Your task to perform on an android device: turn off smart reply in the gmail app Image 0: 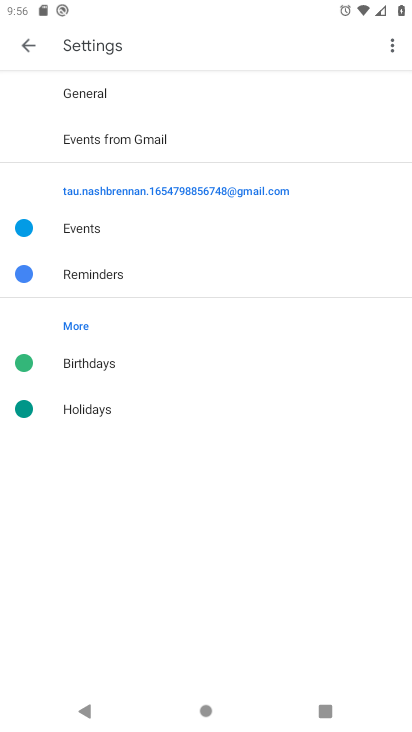
Step 0: click (27, 43)
Your task to perform on an android device: turn off smart reply in the gmail app Image 1: 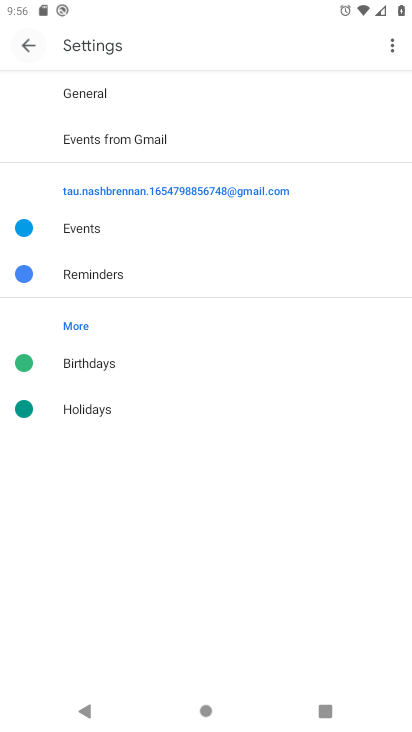
Step 1: click (29, 44)
Your task to perform on an android device: turn off smart reply in the gmail app Image 2: 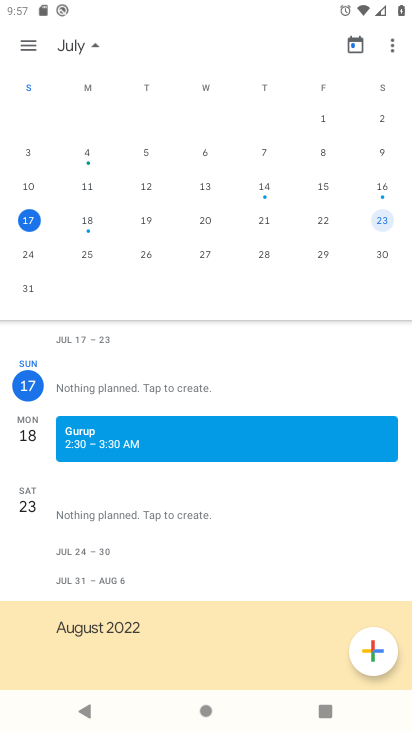
Step 2: drag from (292, 150) to (57, 275)
Your task to perform on an android device: turn off smart reply in the gmail app Image 3: 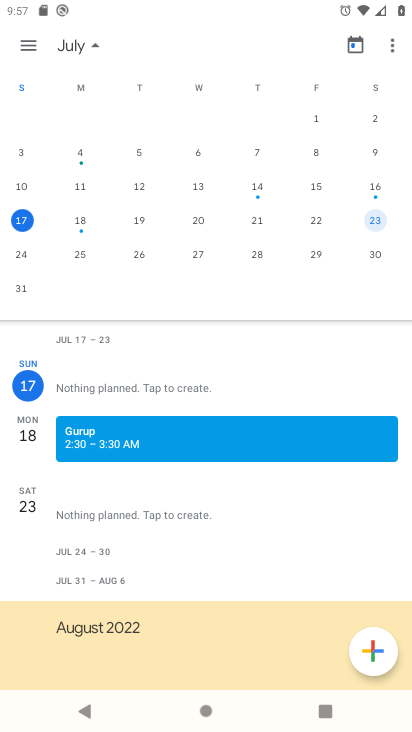
Step 3: drag from (285, 264) to (85, 278)
Your task to perform on an android device: turn off smart reply in the gmail app Image 4: 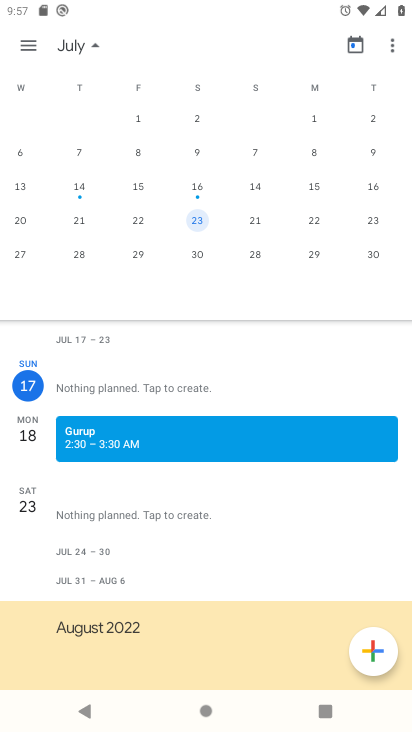
Step 4: drag from (246, 215) to (83, 246)
Your task to perform on an android device: turn off smart reply in the gmail app Image 5: 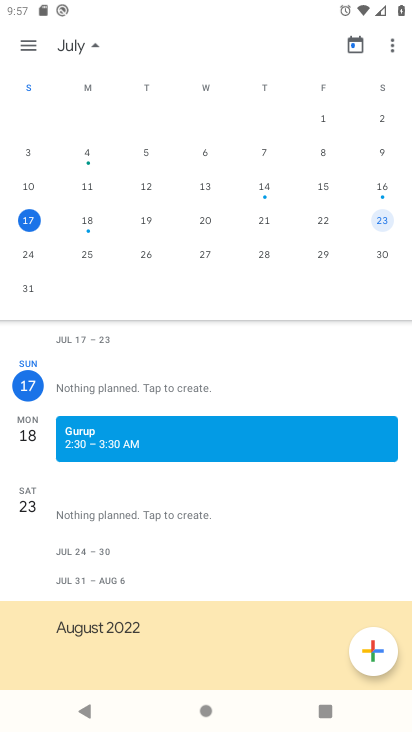
Step 5: click (157, 219)
Your task to perform on an android device: turn off smart reply in the gmail app Image 6: 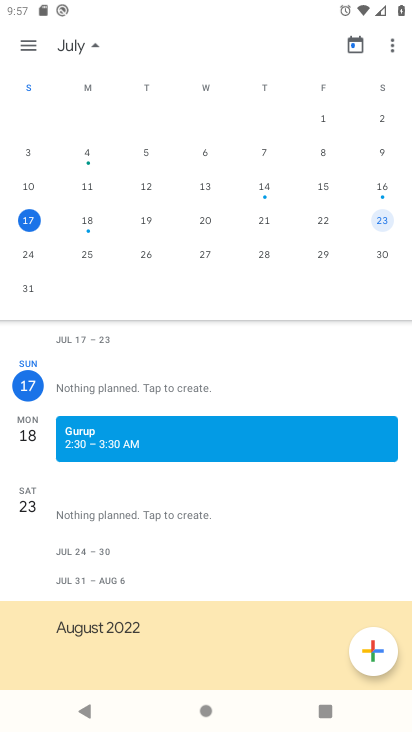
Step 6: click (142, 219)
Your task to perform on an android device: turn off smart reply in the gmail app Image 7: 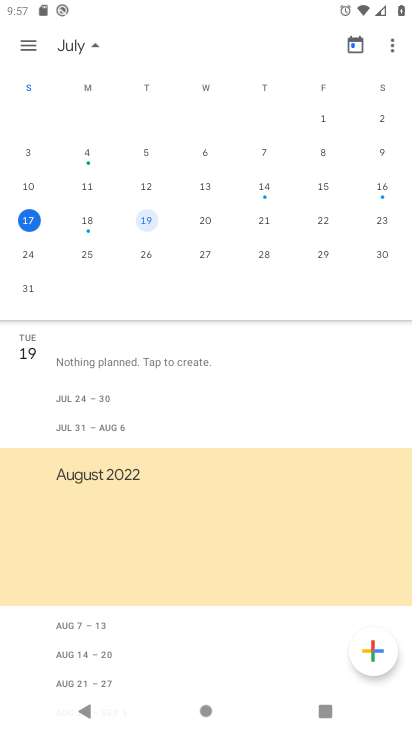
Step 7: click (138, 226)
Your task to perform on an android device: turn off smart reply in the gmail app Image 8: 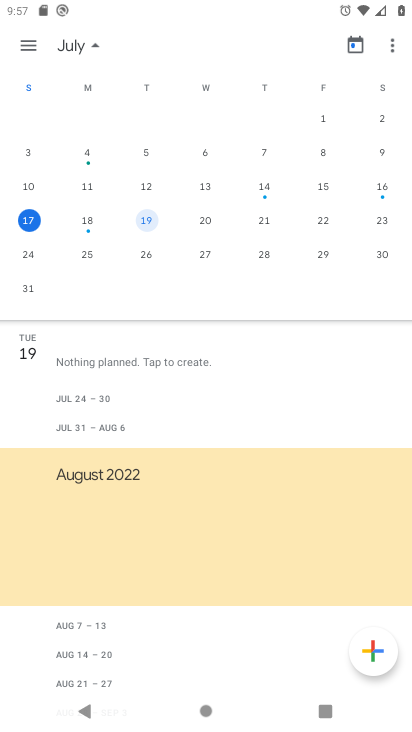
Step 8: click (138, 227)
Your task to perform on an android device: turn off smart reply in the gmail app Image 9: 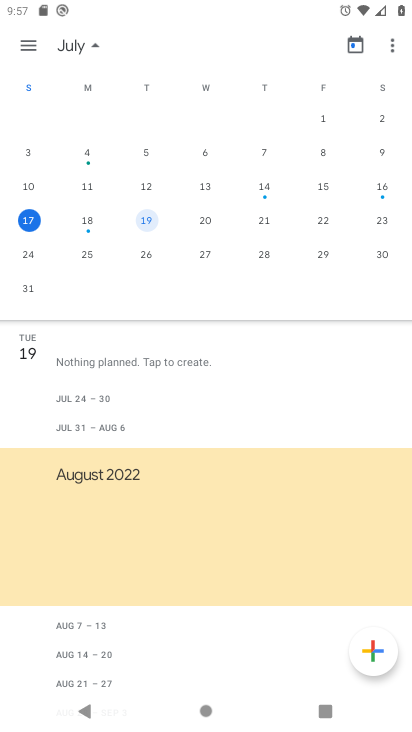
Step 9: press back button
Your task to perform on an android device: turn off smart reply in the gmail app Image 10: 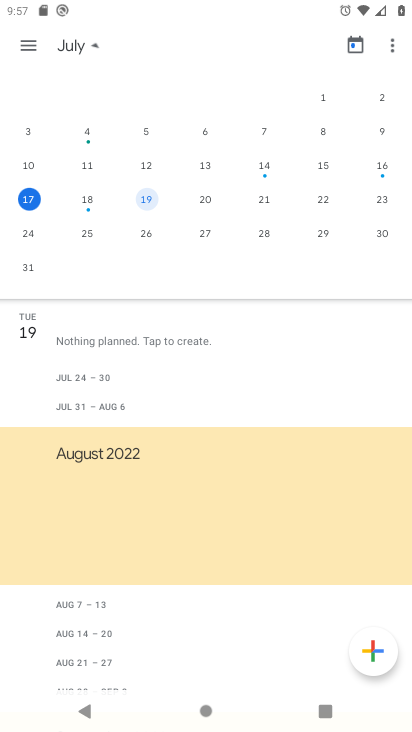
Step 10: press back button
Your task to perform on an android device: turn off smart reply in the gmail app Image 11: 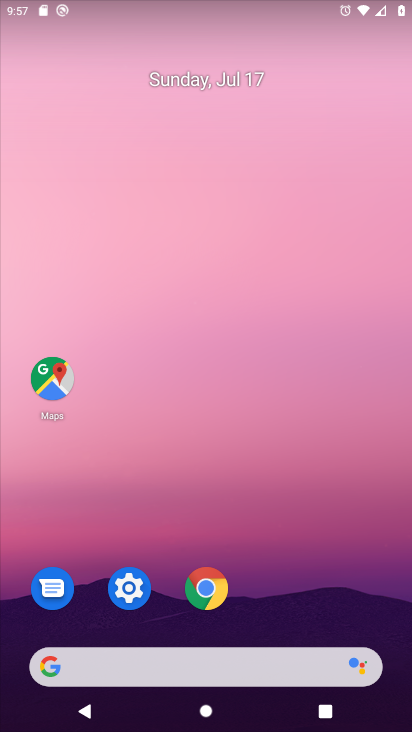
Step 11: drag from (267, 618) to (344, 43)
Your task to perform on an android device: turn off smart reply in the gmail app Image 12: 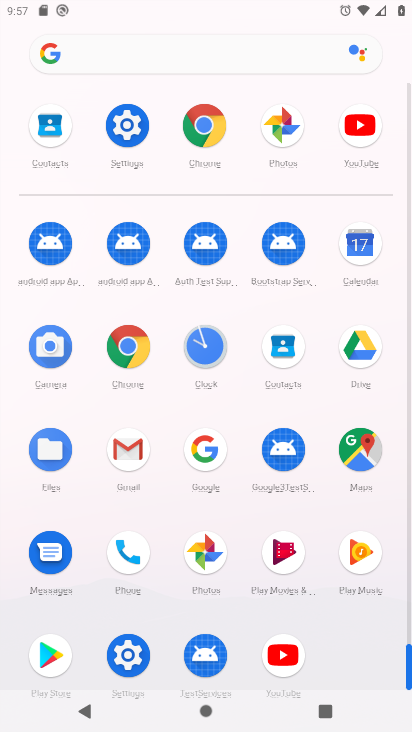
Step 12: drag from (196, 634) to (179, 205)
Your task to perform on an android device: turn off smart reply in the gmail app Image 13: 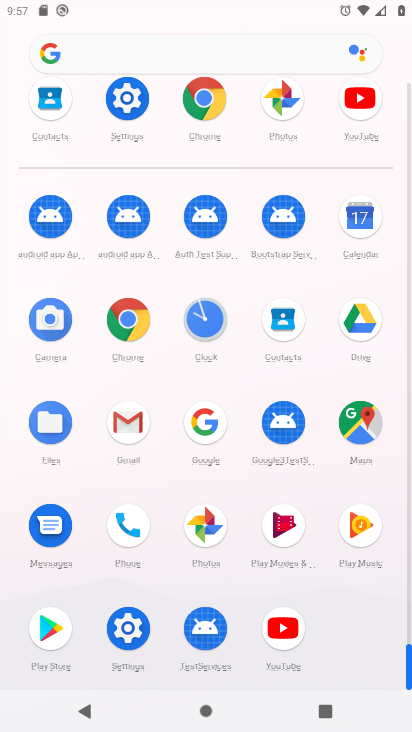
Step 13: click (135, 418)
Your task to perform on an android device: turn off smart reply in the gmail app Image 14: 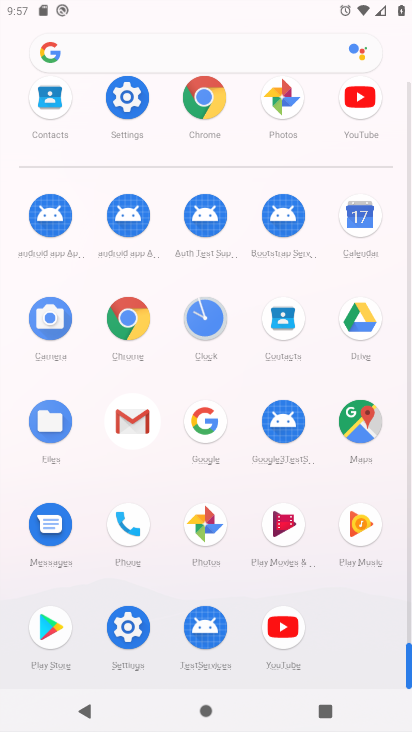
Step 14: click (131, 419)
Your task to perform on an android device: turn off smart reply in the gmail app Image 15: 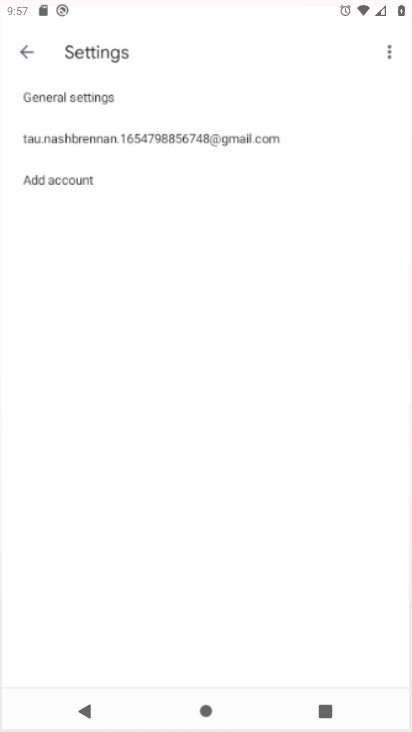
Step 15: click (131, 421)
Your task to perform on an android device: turn off smart reply in the gmail app Image 16: 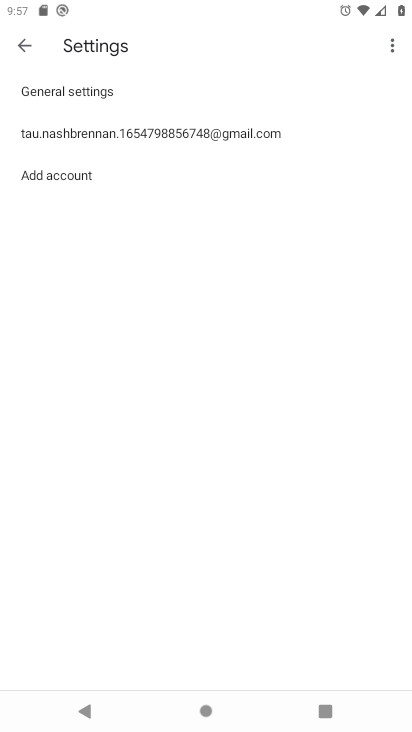
Step 16: click (139, 119)
Your task to perform on an android device: turn off smart reply in the gmail app Image 17: 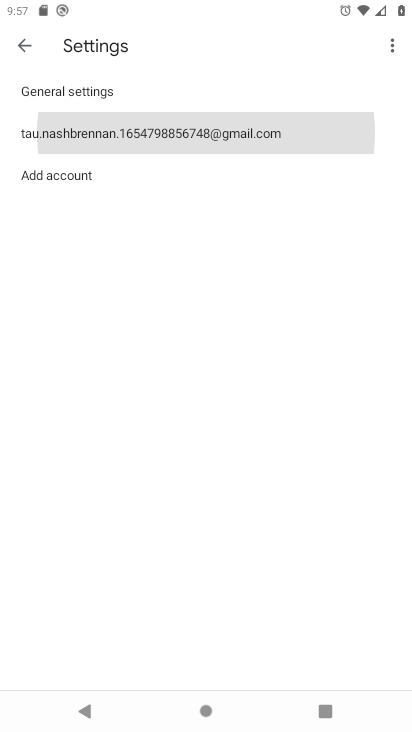
Step 17: click (138, 120)
Your task to perform on an android device: turn off smart reply in the gmail app Image 18: 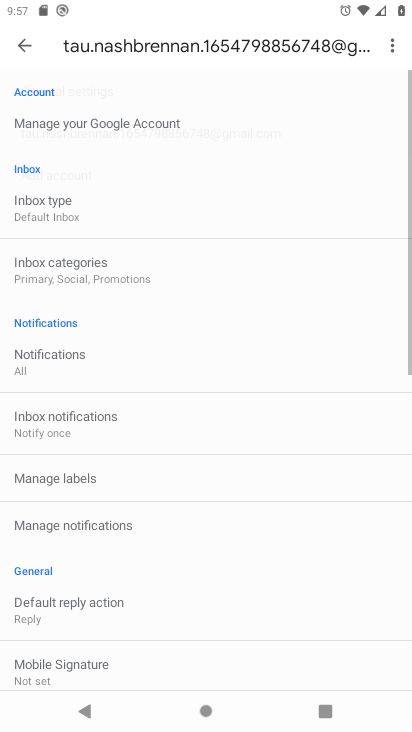
Step 18: click (139, 123)
Your task to perform on an android device: turn off smart reply in the gmail app Image 19: 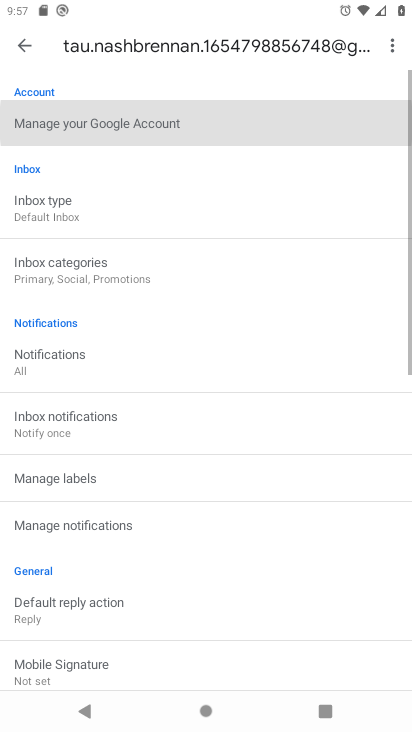
Step 19: click (139, 123)
Your task to perform on an android device: turn off smart reply in the gmail app Image 20: 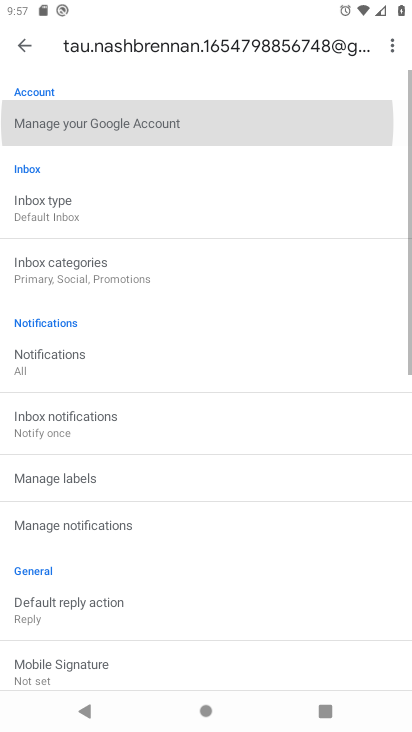
Step 20: click (138, 115)
Your task to perform on an android device: turn off smart reply in the gmail app Image 21: 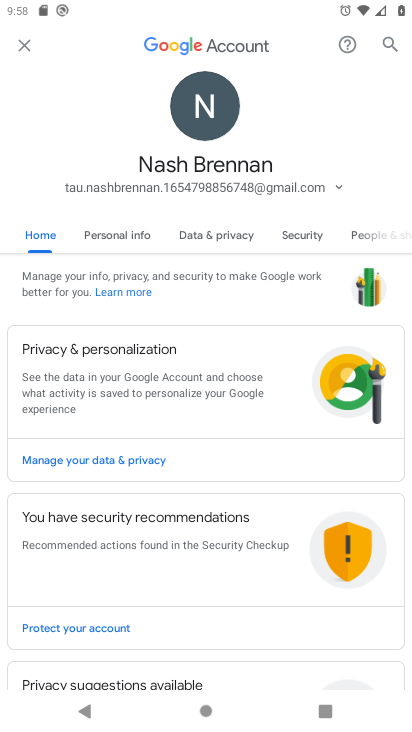
Step 21: click (17, 60)
Your task to perform on an android device: turn off smart reply in the gmail app Image 22: 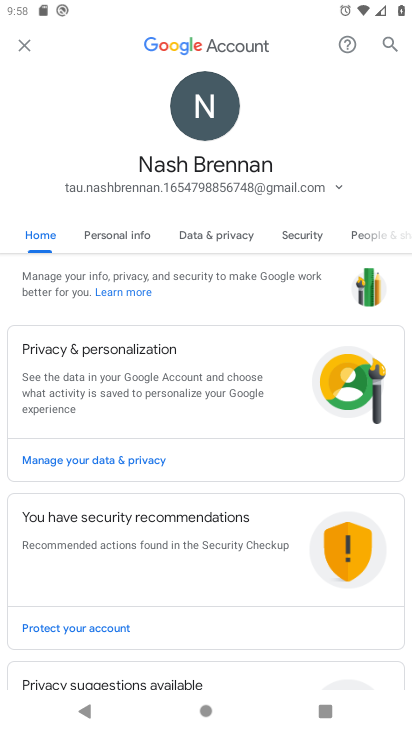
Step 22: click (18, 52)
Your task to perform on an android device: turn off smart reply in the gmail app Image 23: 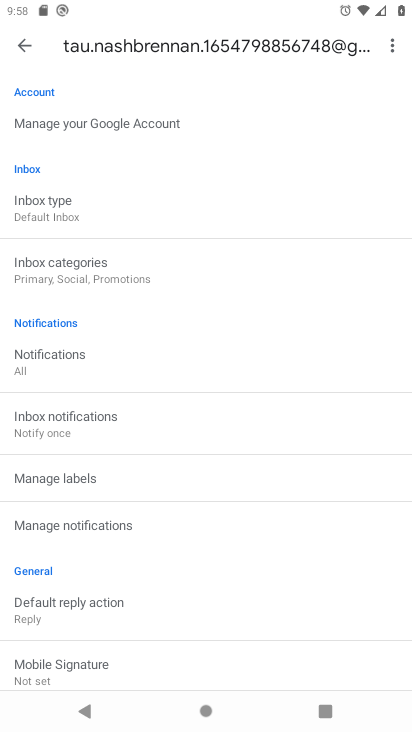
Step 23: task complete